Your task to perform on an android device: change the upload size in google photos Image 0: 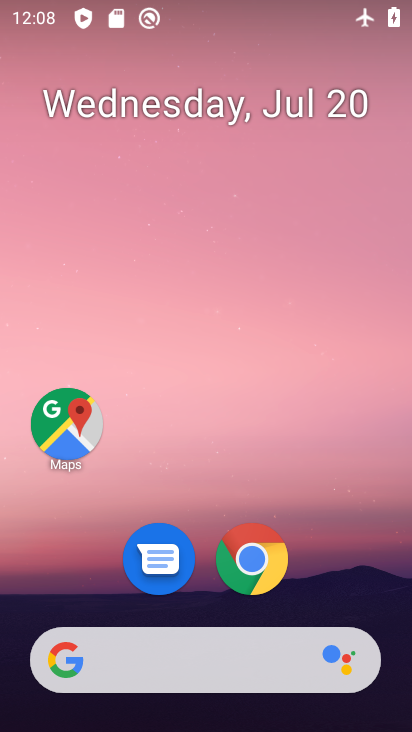
Step 0: drag from (356, 585) to (362, 144)
Your task to perform on an android device: change the upload size in google photos Image 1: 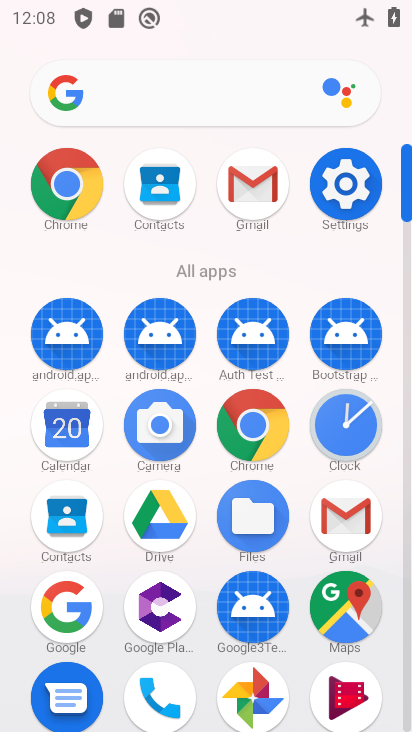
Step 1: click (256, 692)
Your task to perform on an android device: change the upload size in google photos Image 2: 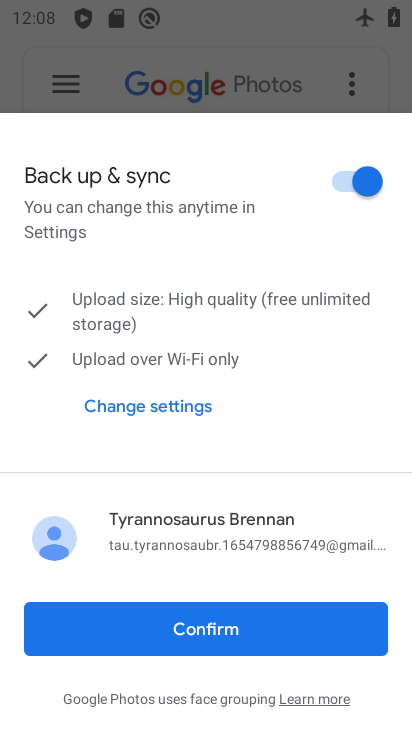
Step 2: click (345, 647)
Your task to perform on an android device: change the upload size in google photos Image 3: 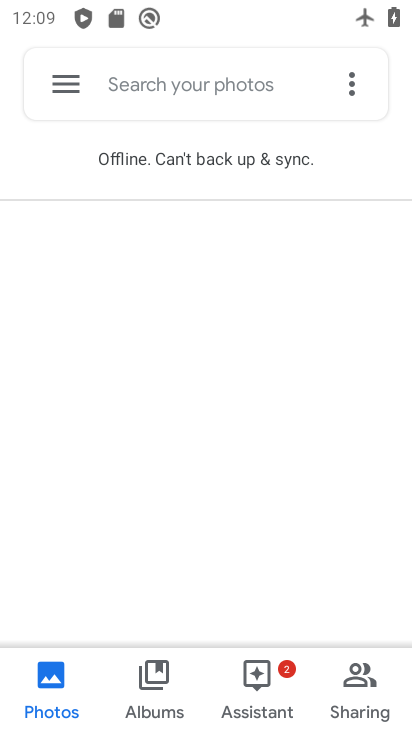
Step 3: click (62, 79)
Your task to perform on an android device: change the upload size in google photos Image 4: 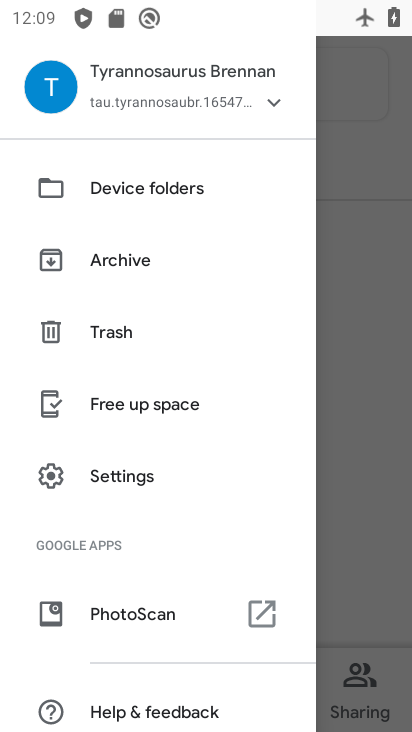
Step 4: click (138, 479)
Your task to perform on an android device: change the upload size in google photos Image 5: 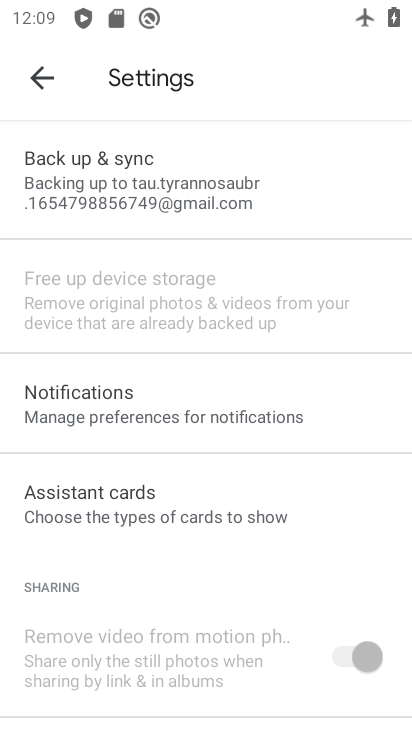
Step 5: click (234, 185)
Your task to perform on an android device: change the upload size in google photos Image 6: 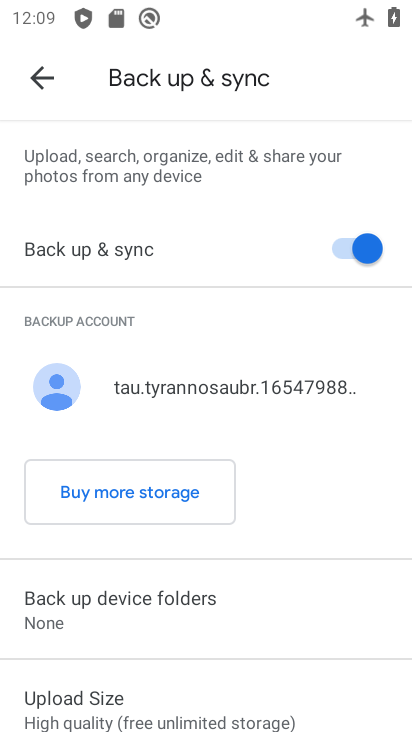
Step 6: drag from (343, 538) to (345, 409)
Your task to perform on an android device: change the upload size in google photos Image 7: 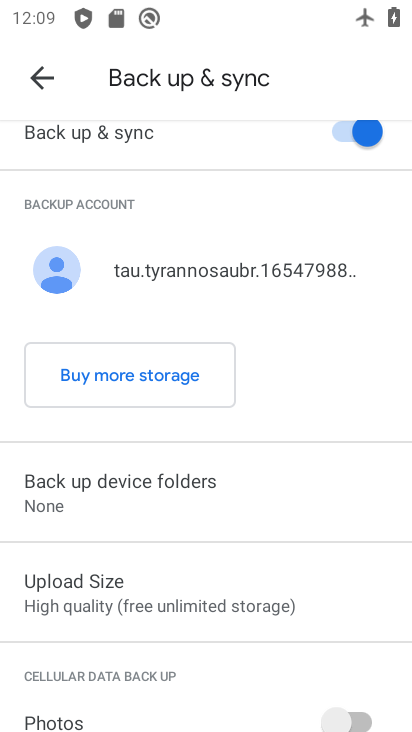
Step 7: click (324, 572)
Your task to perform on an android device: change the upload size in google photos Image 8: 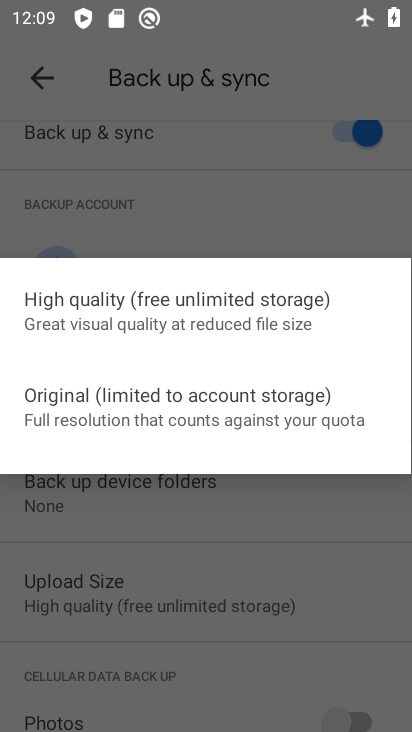
Step 8: click (174, 417)
Your task to perform on an android device: change the upload size in google photos Image 9: 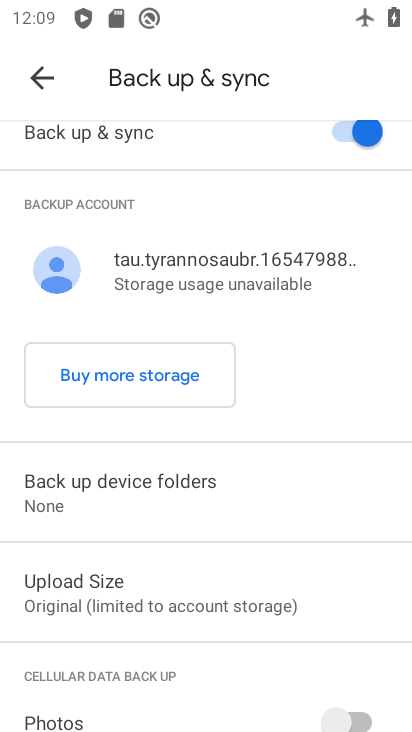
Step 9: task complete